Your task to perform on an android device: snooze an email in the gmail app Image 0: 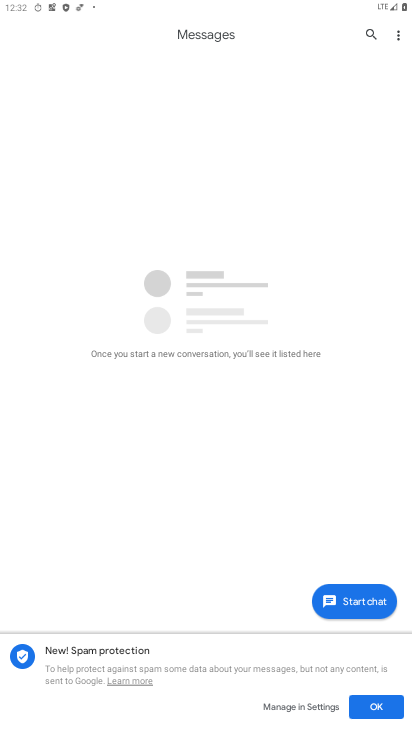
Step 0: drag from (25, 699) to (152, 409)
Your task to perform on an android device: snooze an email in the gmail app Image 1: 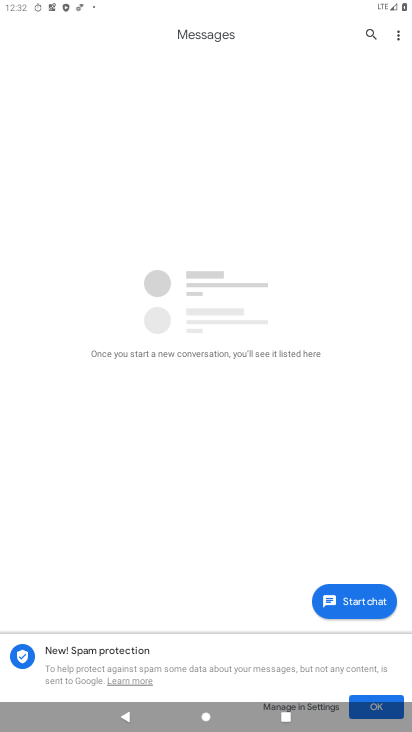
Step 1: press home button
Your task to perform on an android device: snooze an email in the gmail app Image 2: 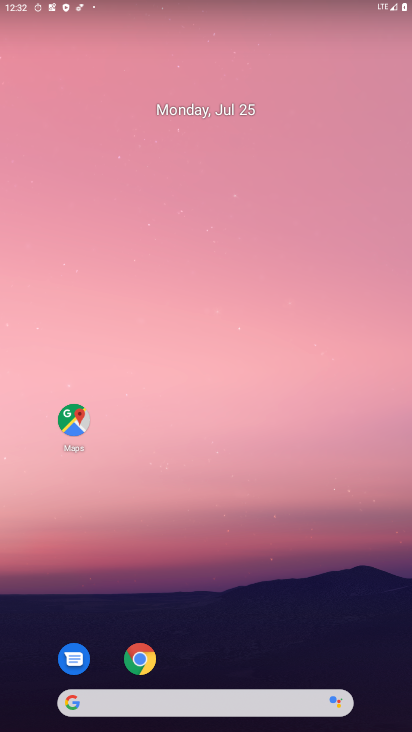
Step 2: drag from (40, 694) to (299, 139)
Your task to perform on an android device: snooze an email in the gmail app Image 3: 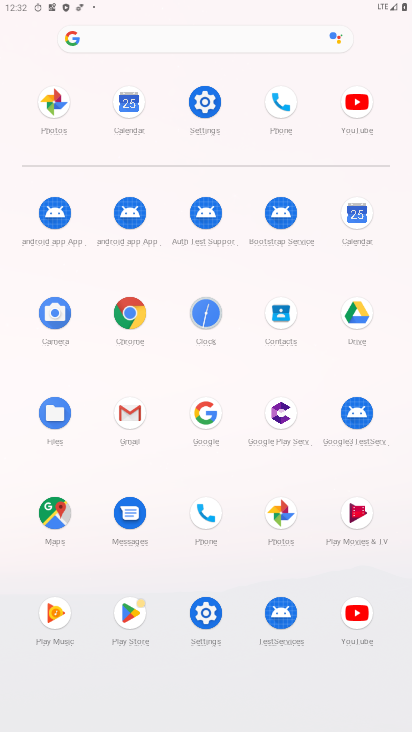
Step 3: click (134, 420)
Your task to perform on an android device: snooze an email in the gmail app Image 4: 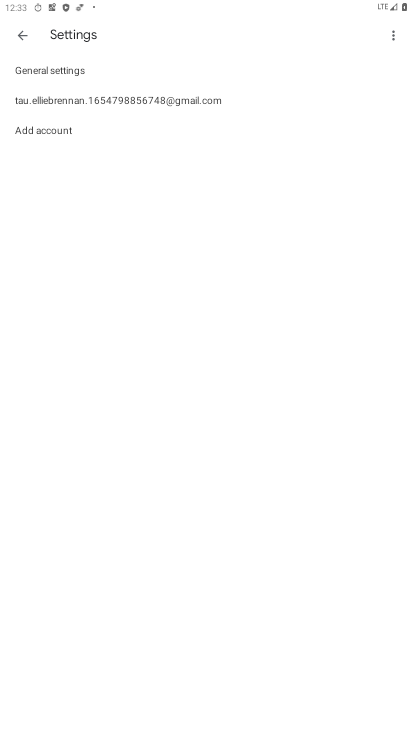
Step 4: click (27, 37)
Your task to perform on an android device: snooze an email in the gmail app Image 5: 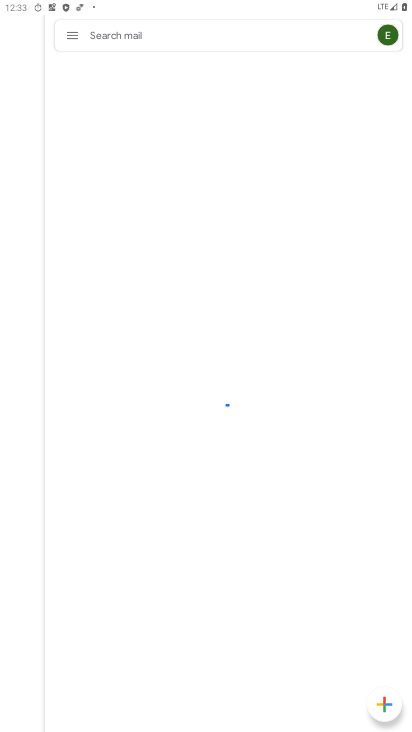
Step 5: click (74, 34)
Your task to perform on an android device: snooze an email in the gmail app Image 6: 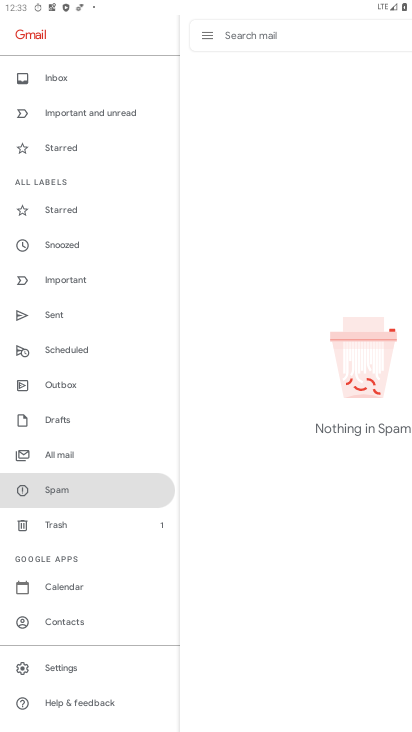
Step 6: click (58, 245)
Your task to perform on an android device: snooze an email in the gmail app Image 7: 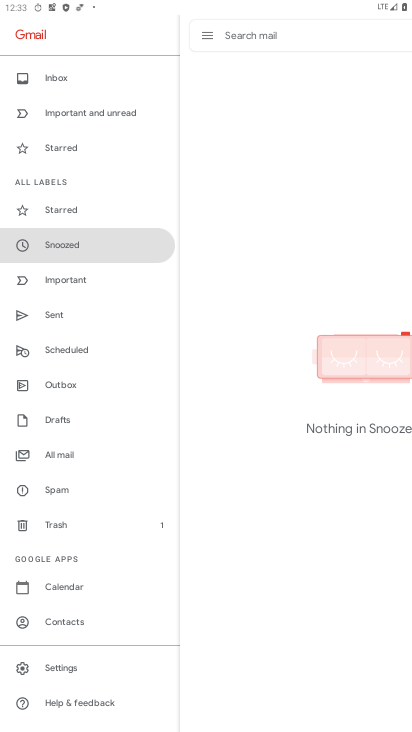
Step 7: task complete